Your task to perform on an android device: What's on my calendar tomorrow? Image 0: 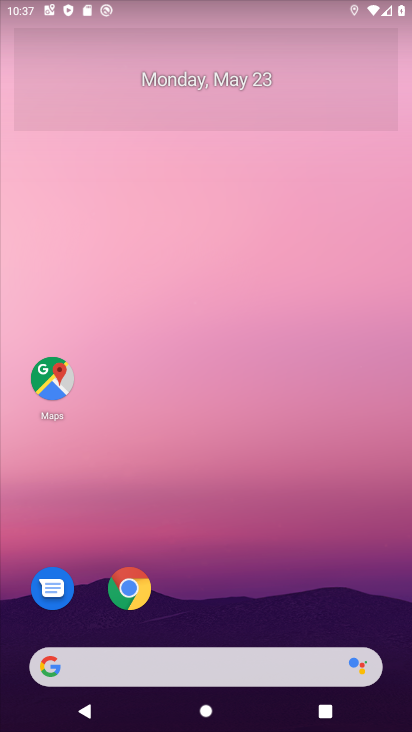
Step 0: drag from (250, 593) to (262, 102)
Your task to perform on an android device: What's on my calendar tomorrow? Image 1: 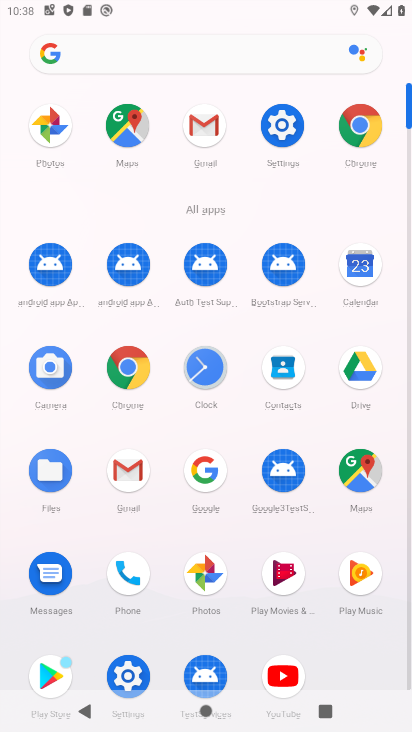
Step 1: click (351, 271)
Your task to perform on an android device: What's on my calendar tomorrow? Image 2: 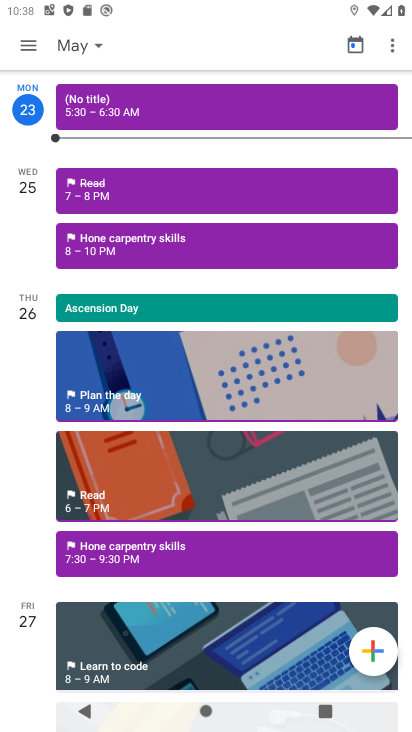
Step 2: click (86, 41)
Your task to perform on an android device: What's on my calendar tomorrow? Image 3: 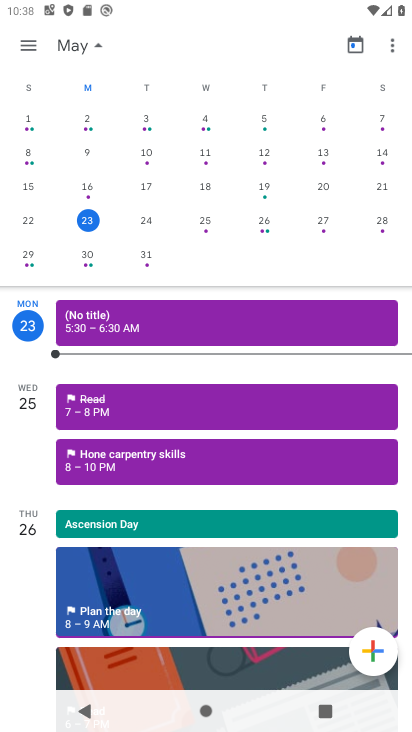
Step 3: click (144, 218)
Your task to perform on an android device: What's on my calendar tomorrow? Image 4: 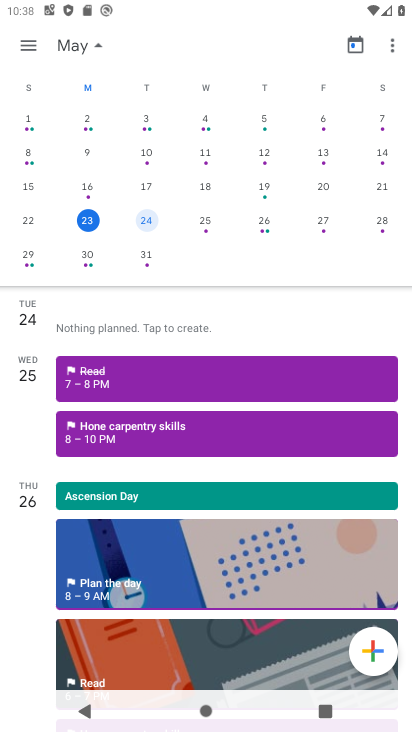
Step 4: click (145, 228)
Your task to perform on an android device: What's on my calendar tomorrow? Image 5: 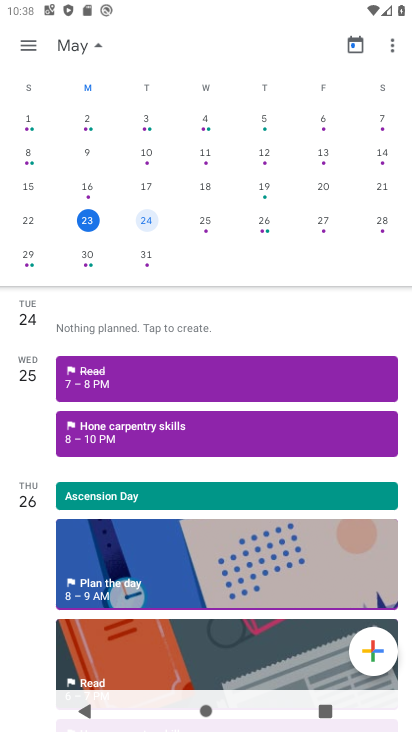
Step 5: click (153, 214)
Your task to perform on an android device: What's on my calendar tomorrow? Image 6: 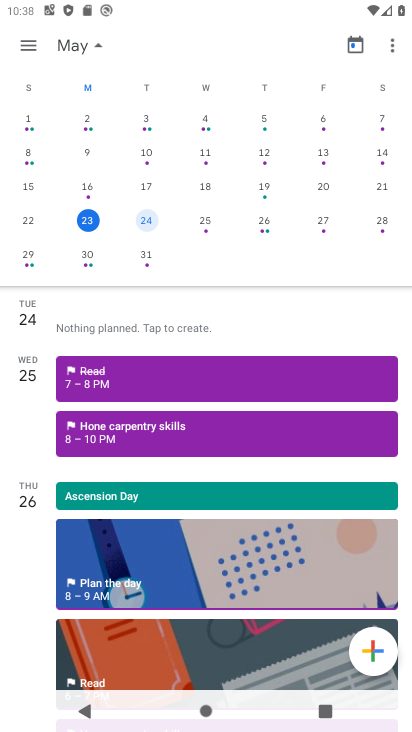
Step 6: task complete